Your task to perform on an android device: open device folders in google photos Image 0: 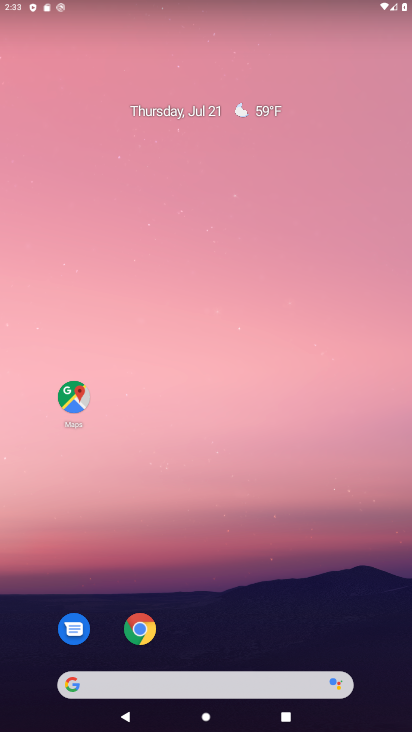
Step 0: drag from (224, 722) to (227, 146)
Your task to perform on an android device: open device folders in google photos Image 1: 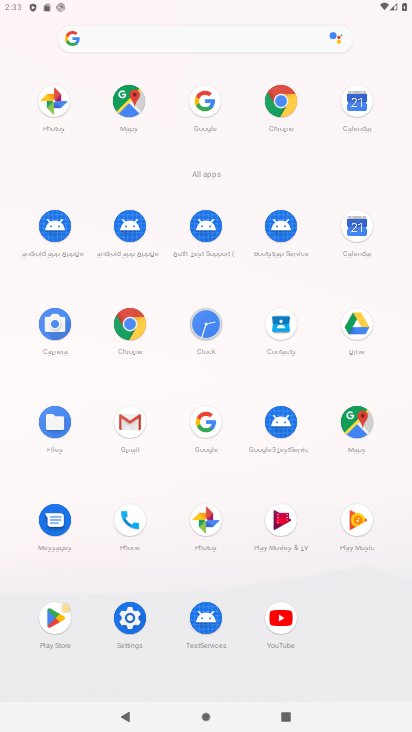
Step 1: click (203, 513)
Your task to perform on an android device: open device folders in google photos Image 2: 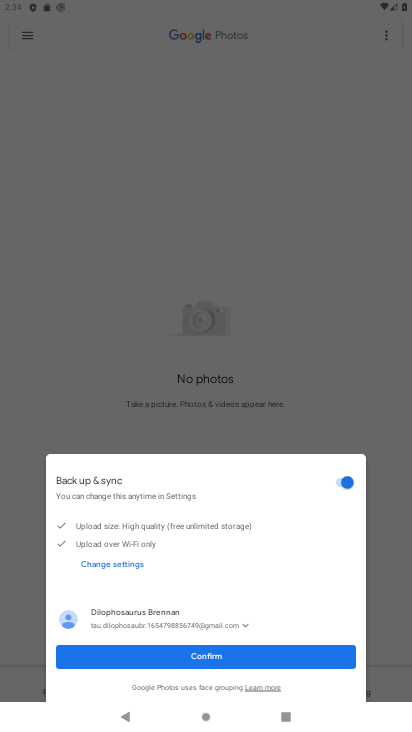
Step 2: click (181, 651)
Your task to perform on an android device: open device folders in google photos Image 3: 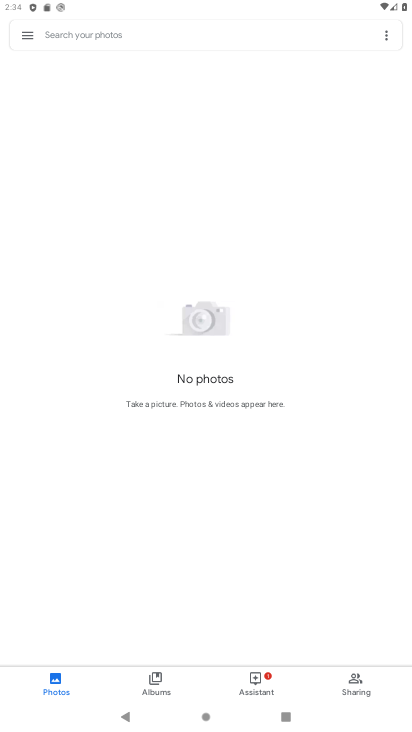
Step 3: click (24, 28)
Your task to perform on an android device: open device folders in google photos Image 4: 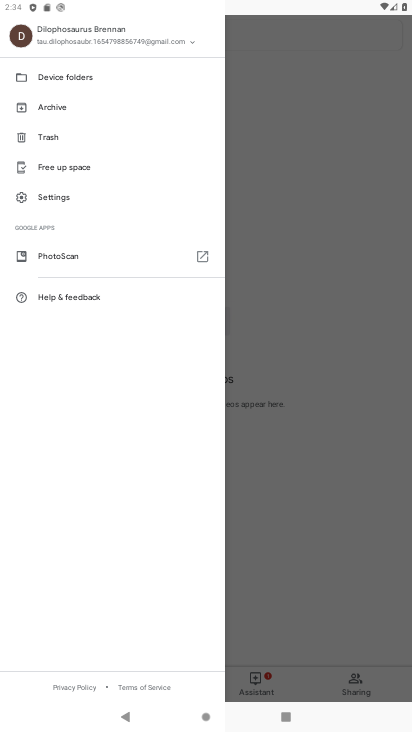
Step 4: click (52, 71)
Your task to perform on an android device: open device folders in google photos Image 5: 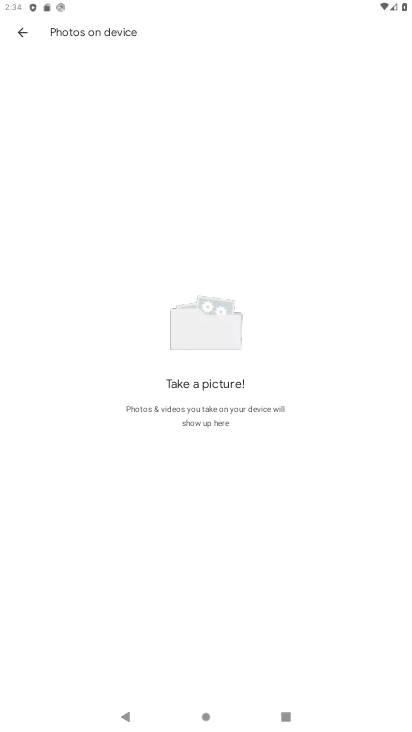
Step 5: task complete